Your task to perform on an android device: delete the emails in spam in the gmail app Image 0: 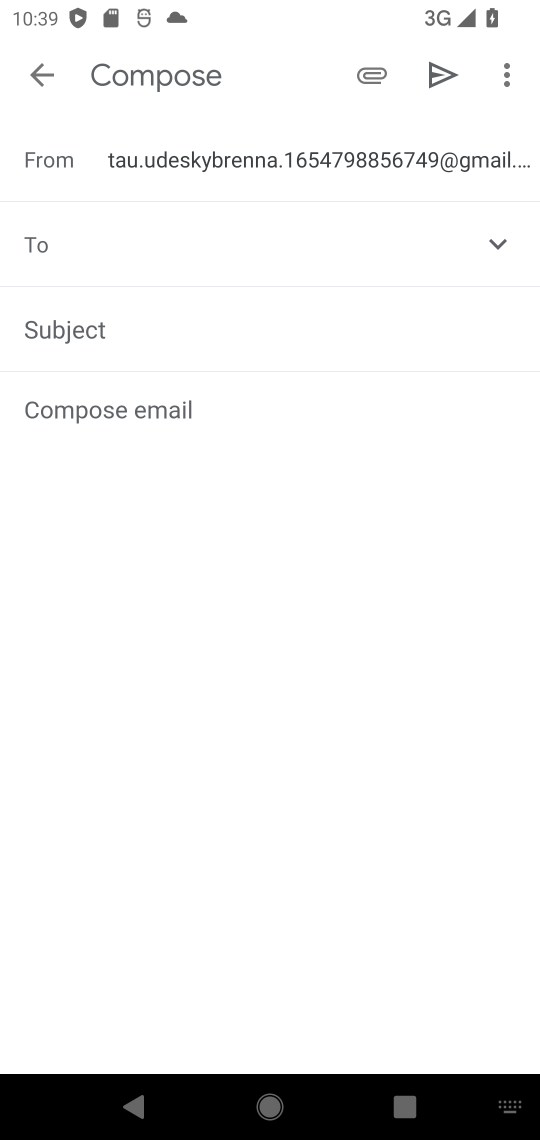
Step 0: press home button
Your task to perform on an android device: delete the emails in spam in the gmail app Image 1: 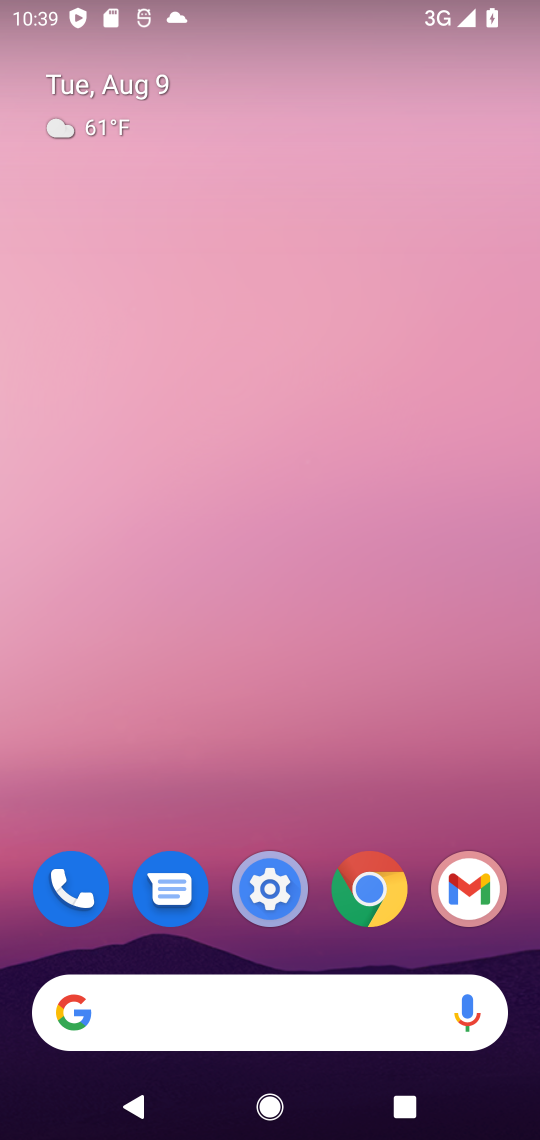
Step 1: drag from (247, 960) to (267, 122)
Your task to perform on an android device: delete the emails in spam in the gmail app Image 2: 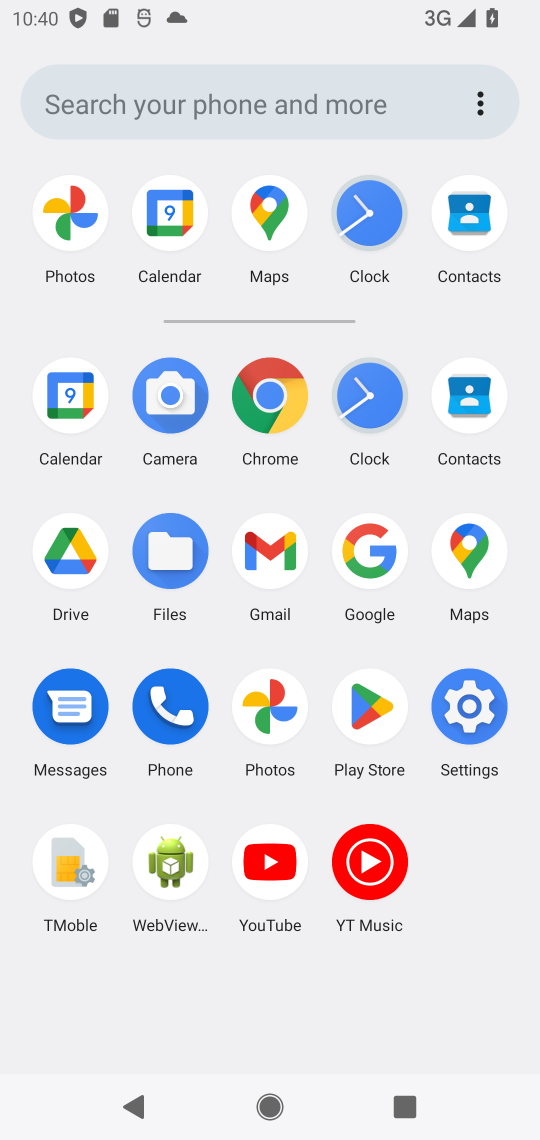
Step 2: click (261, 559)
Your task to perform on an android device: delete the emails in spam in the gmail app Image 3: 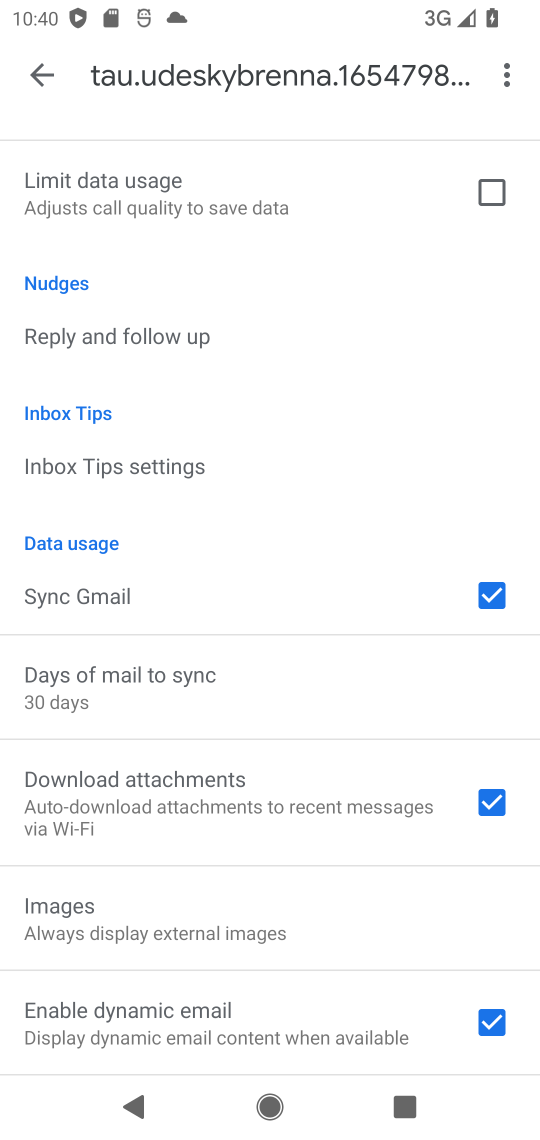
Step 3: click (35, 95)
Your task to perform on an android device: delete the emails in spam in the gmail app Image 4: 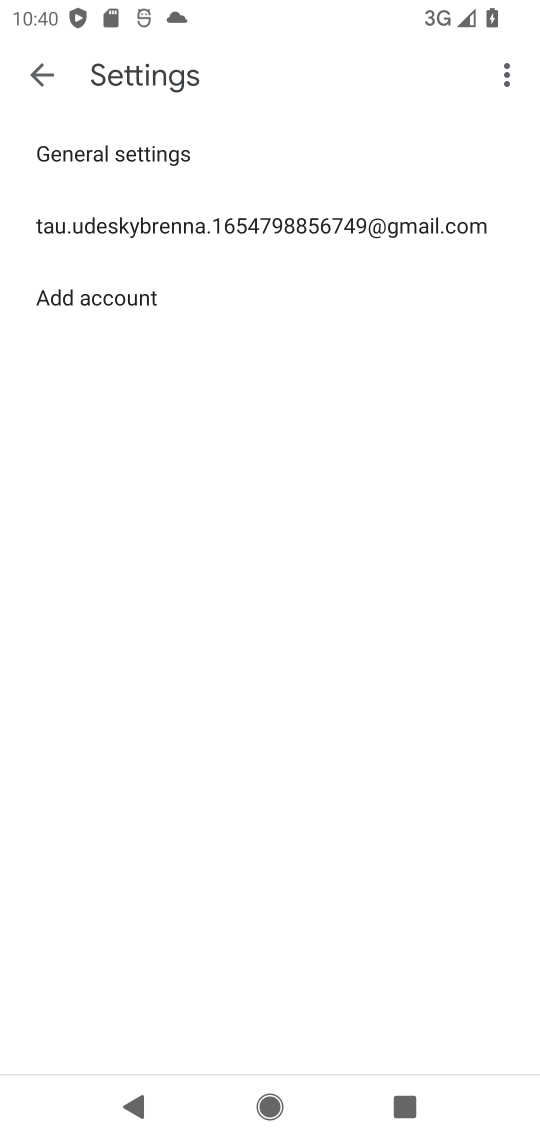
Step 4: click (36, 86)
Your task to perform on an android device: delete the emails in spam in the gmail app Image 5: 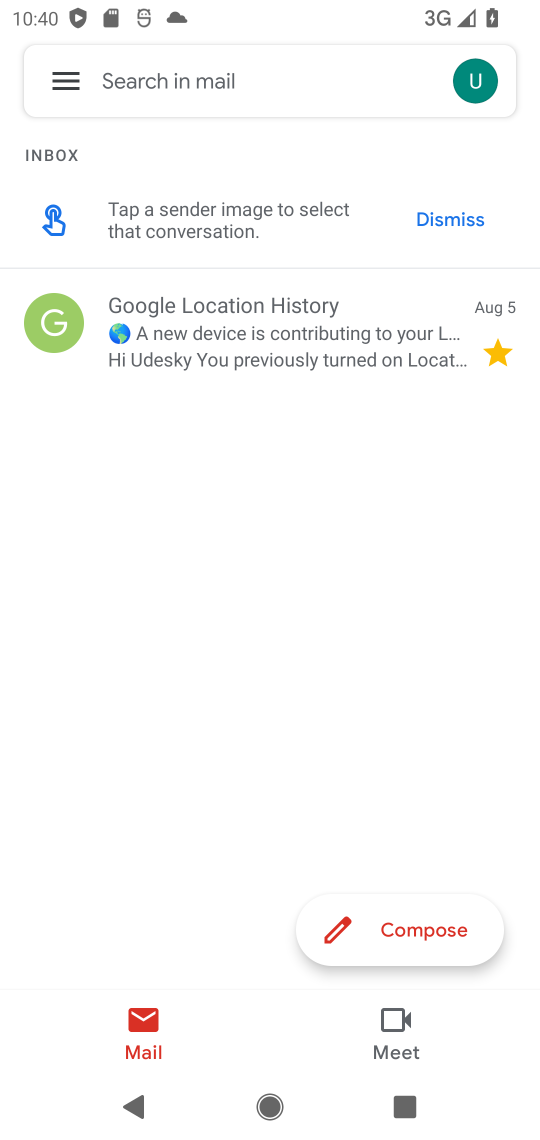
Step 5: click (212, 324)
Your task to perform on an android device: delete the emails in spam in the gmail app Image 6: 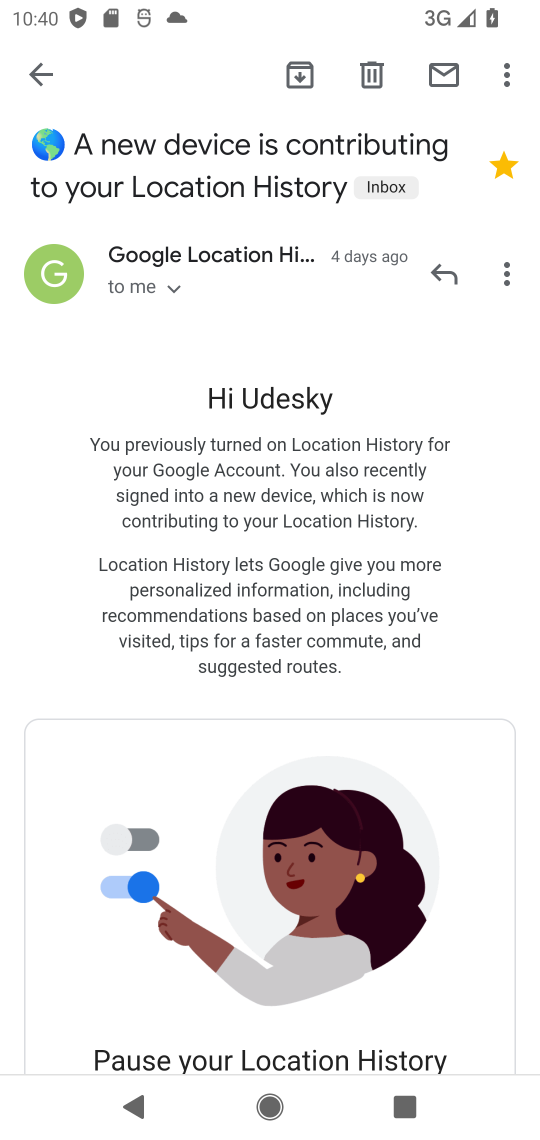
Step 6: click (363, 70)
Your task to perform on an android device: delete the emails in spam in the gmail app Image 7: 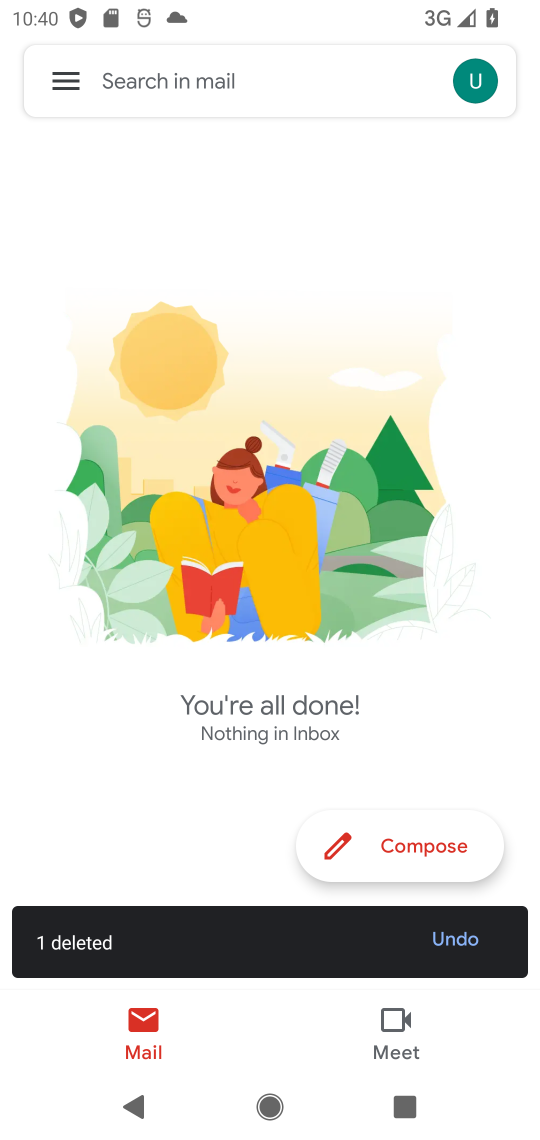
Step 7: task complete